Your task to perform on an android device: turn off priority inbox in the gmail app Image 0: 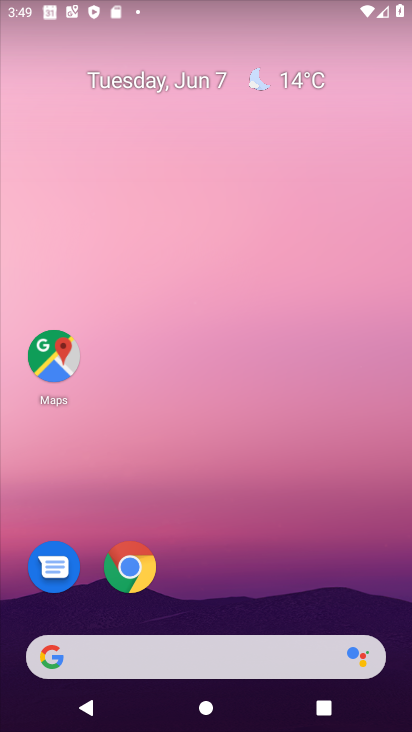
Step 0: drag from (211, 585) to (211, 244)
Your task to perform on an android device: turn off priority inbox in the gmail app Image 1: 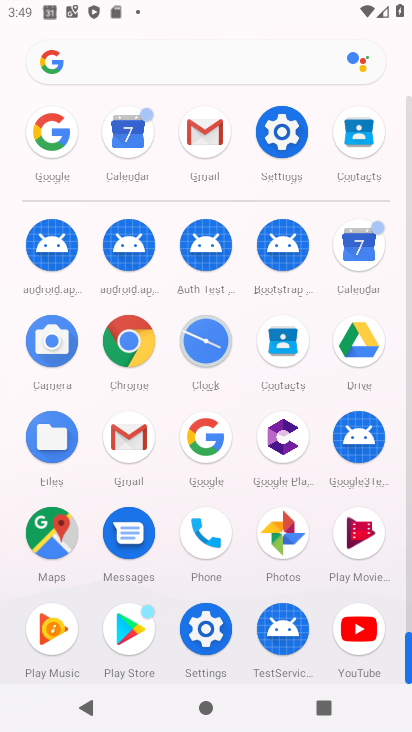
Step 1: click (198, 119)
Your task to perform on an android device: turn off priority inbox in the gmail app Image 2: 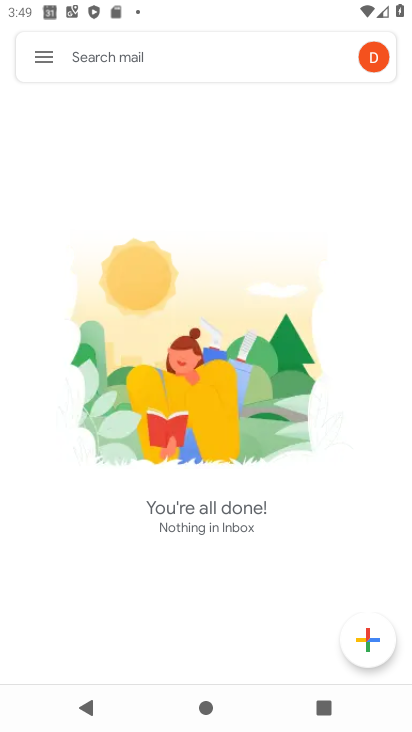
Step 2: click (46, 64)
Your task to perform on an android device: turn off priority inbox in the gmail app Image 3: 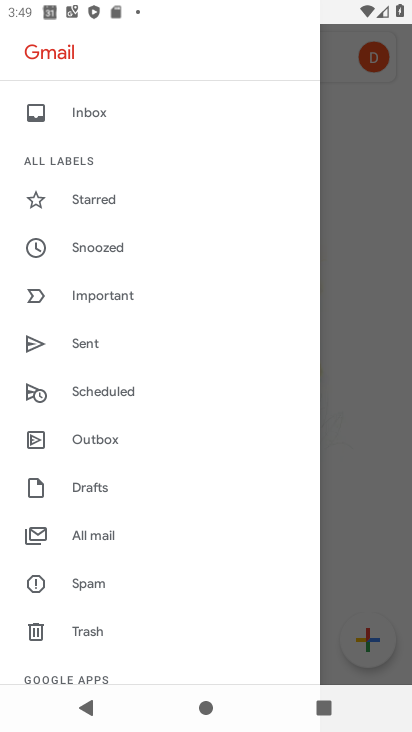
Step 3: drag from (137, 640) to (157, 291)
Your task to perform on an android device: turn off priority inbox in the gmail app Image 4: 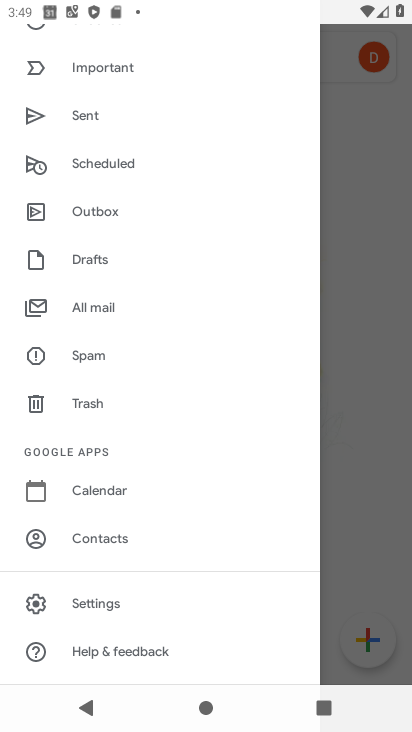
Step 4: click (93, 597)
Your task to perform on an android device: turn off priority inbox in the gmail app Image 5: 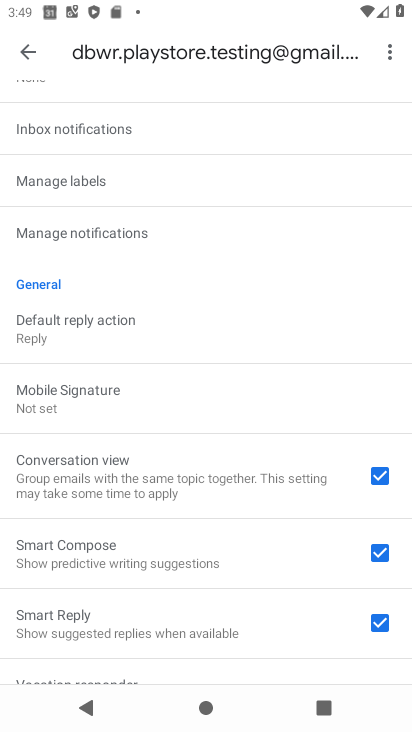
Step 5: drag from (152, 184) to (176, 550)
Your task to perform on an android device: turn off priority inbox in the gmail app Image 6: 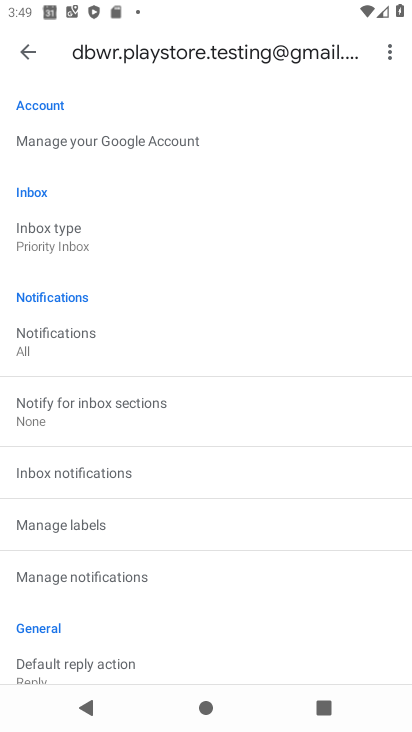
Step 6: click (122, 236)
Your task to perform on an android device: turn off priority inbox in the gmail app Image 7: 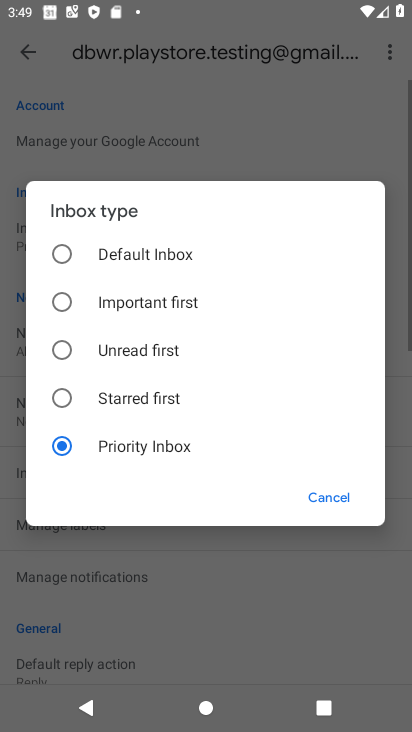
Step 7: click (122, 247)
Your task to perform on an android device: turn off priority inbox in the gmail app Image 8: 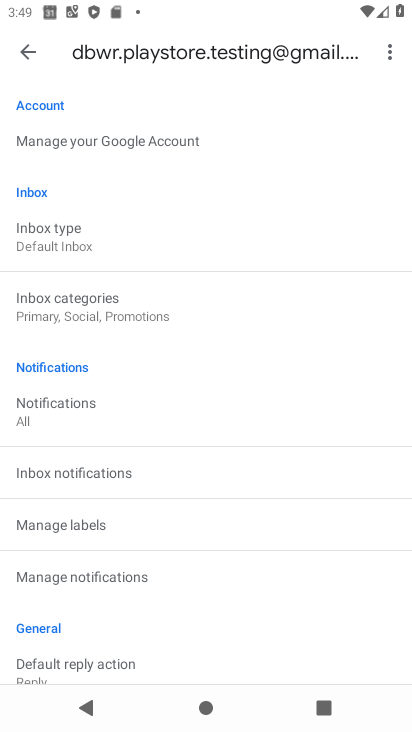
Step 8: task complete